Your task to perform on an android device: Do I have any events tomorrow? Image 0: 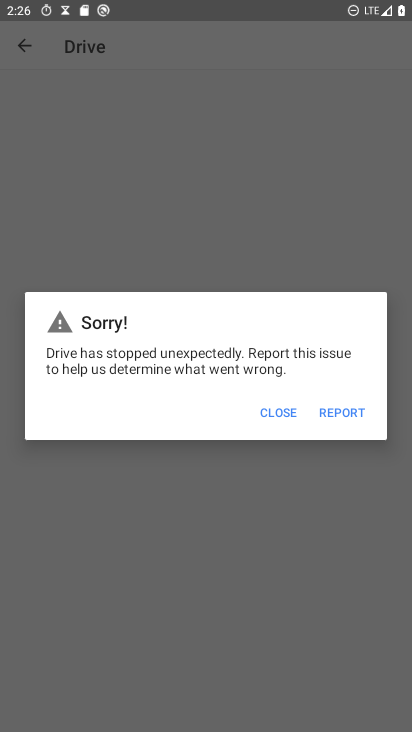
Step 0: drag from (236, 686) to (267, 5)
Your task to perform on an android device: Do I have any events tomorrow? Image 1: 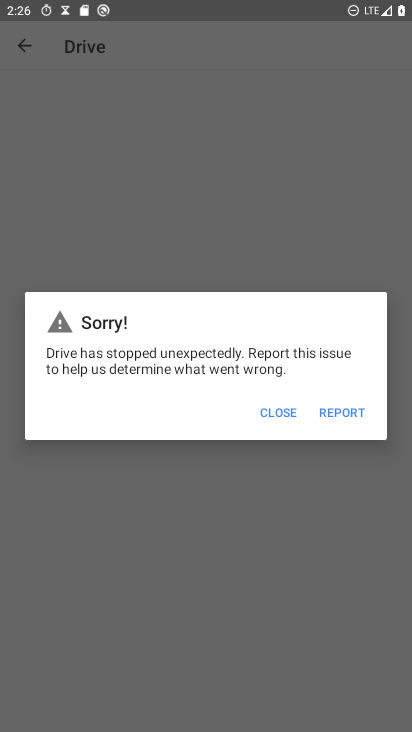
Step 1: press home button
Your task to perform on an android device: Do I have any events tomorrow? Image 2: 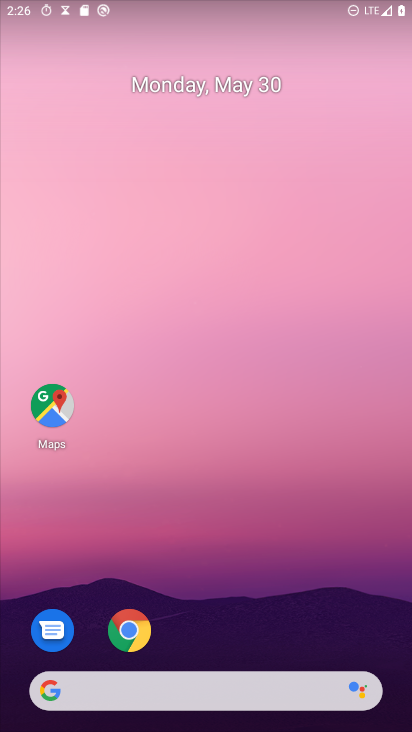
Step 2: drag from (233, 717) to (281, 0)
Your task to perform on an android device: Do I have any events tomorrow? Image 3: 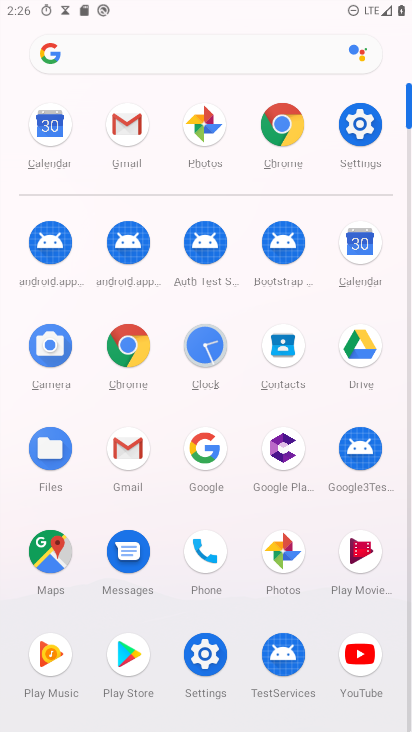
Step 3: click (369, 242)
Your task to perform on an android device: Do I have any events tomorrow? Image 4: 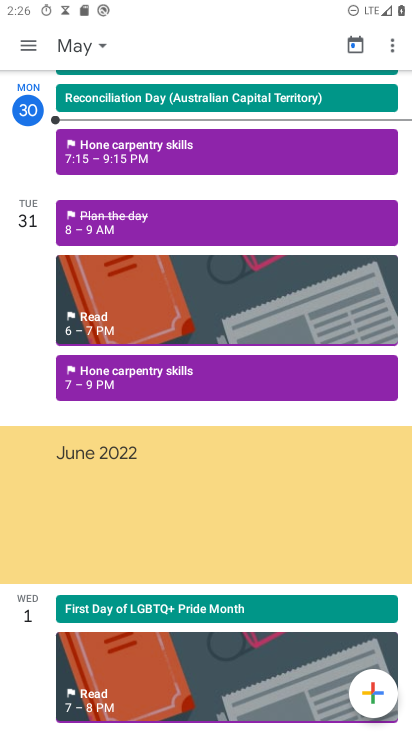
Step 4: click (28, 47)
Your task to perform on an android device: Do I have any events tomorrow? Image 5: 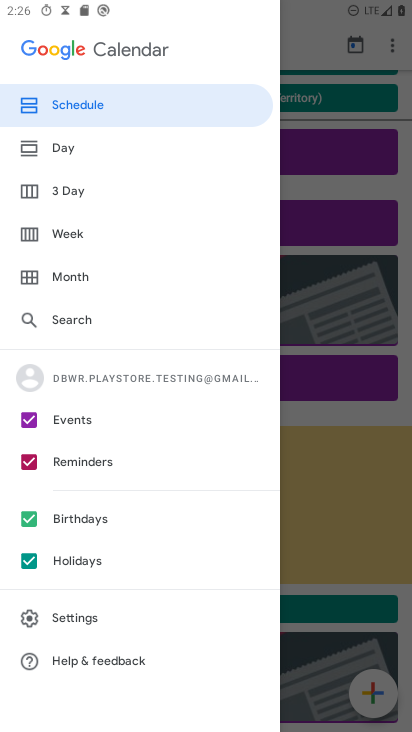
Step 5: click (55, 106)
Your task to perform on an android device: Do I have any events tomorrow? Image 6: 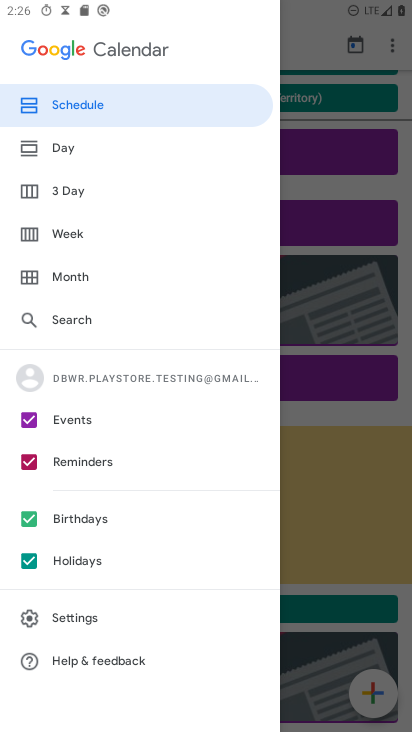
Step 6: click (366, 269)
Your task to perform on an android device: Do I have any events tomorrow? Image 7: 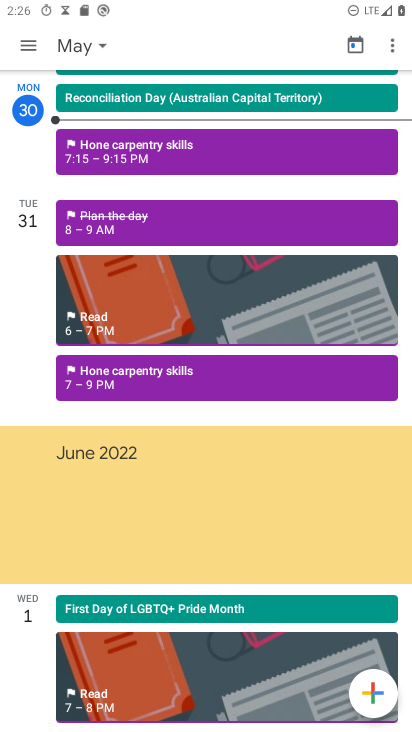
Step 7: task complete